Your task to perform on an android device: Open ESPN.com Image 0: 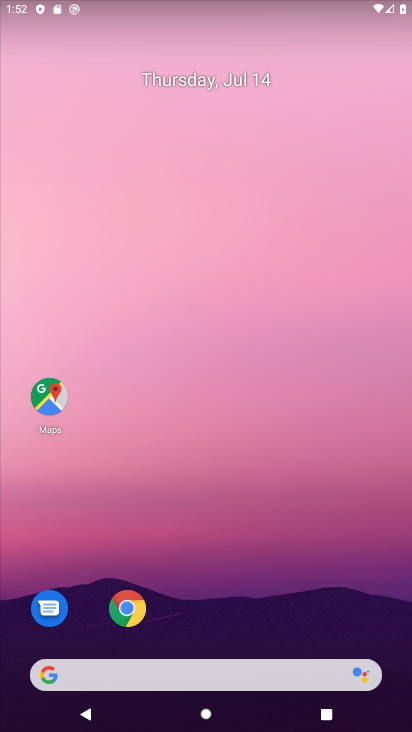
Step 0: click (126, 610)
Your task to perform on an android device: Open ESPN.com Image 1: 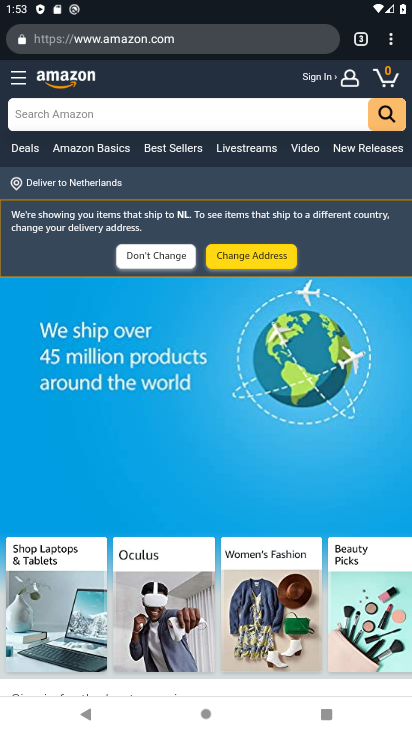
Step 1: click (394, 43)
Your task to perform on an android device: Open ESPN.com Image 2: 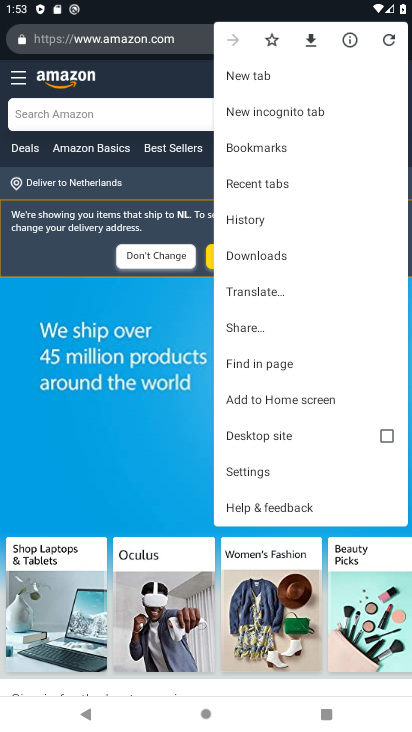
Step 2: click (254, 77)
Your task to perform on an android device: Open ESPN.com Image 3: 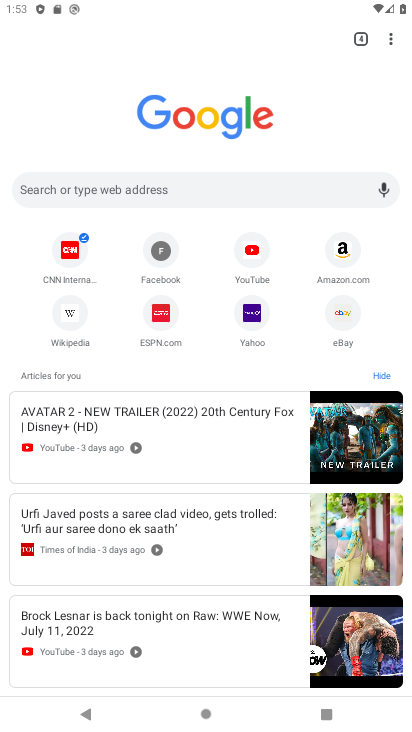
Step 3: click (160, 317)
Your task to perform on an android device: Open ESPN.com Image 4: 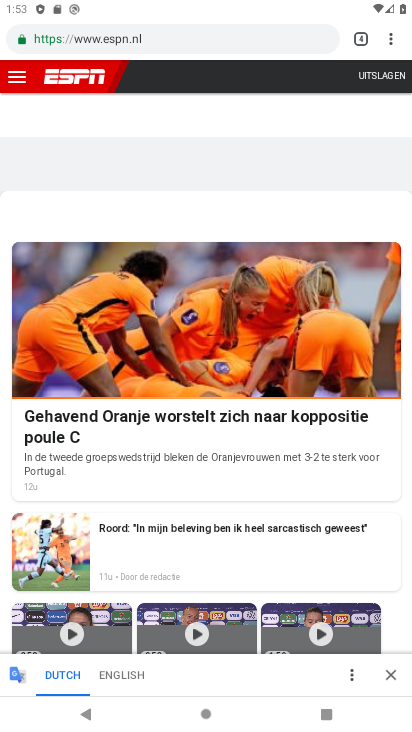
Step 4: task complete